Your task to perform on an android device: Show me productivity apps on the Play Store Image 0: 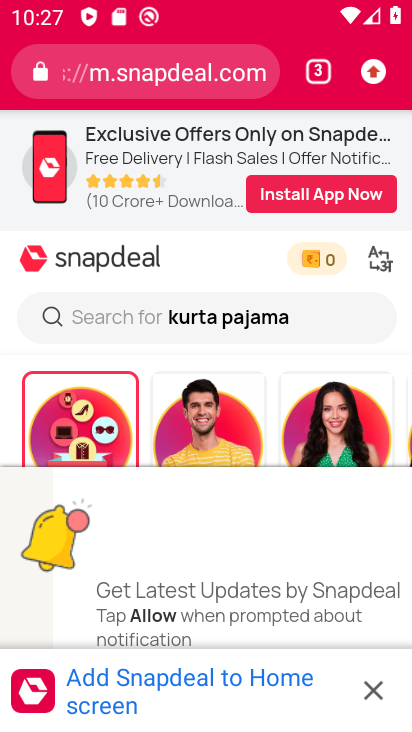
Step 0: press home button
Your task to perform on an android device: Show me productivity apps on the Play Store Image 1: 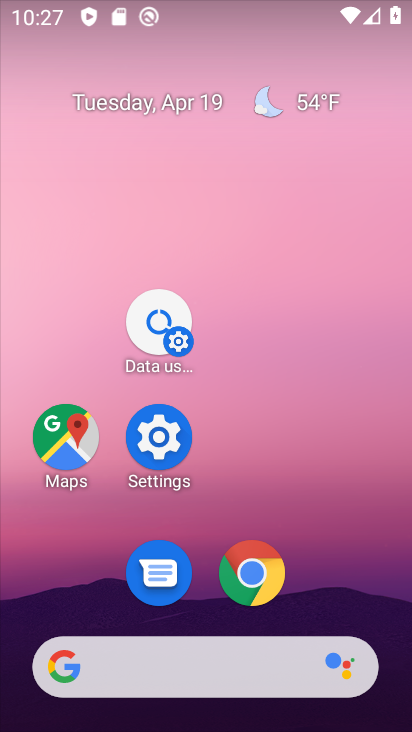
Step 1: drag from (367, 607) to (350, 5)
Your task to perform on an android device: Show me productivity apps on the Play Store Image 2: 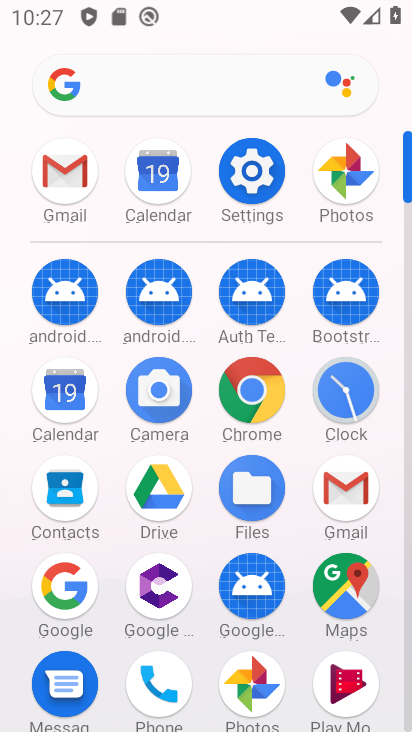
Step 2: click (405, 440)
Your task to perform on an android device: Show me productivity apps on the Play Store Image 3: 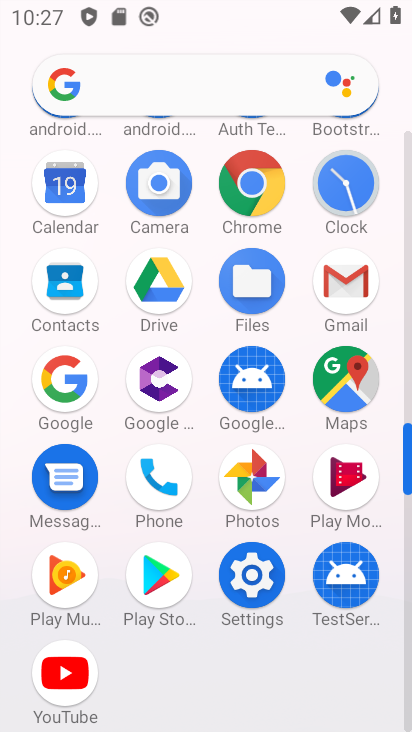
Step 3: click (149, 579)
Your task to perform on an android device: Show me productivity apps on the Play Store Image 4: 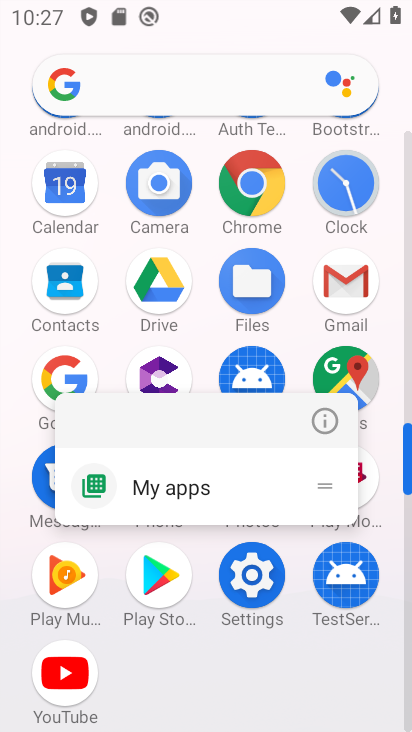
Step 4: click (169, 578)
Your task to perform on an android device: Show me productivity apps on the Play Store Image 5: 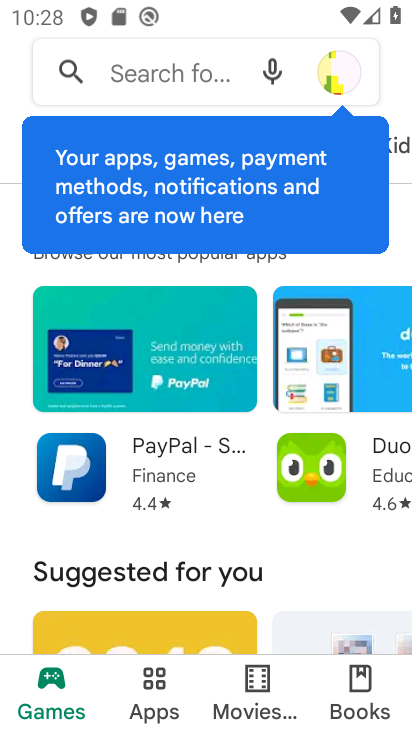
Step 5: click (147, 695)
Your task to perform on an android device: Show me productivity apps on the Play Store Image 6: 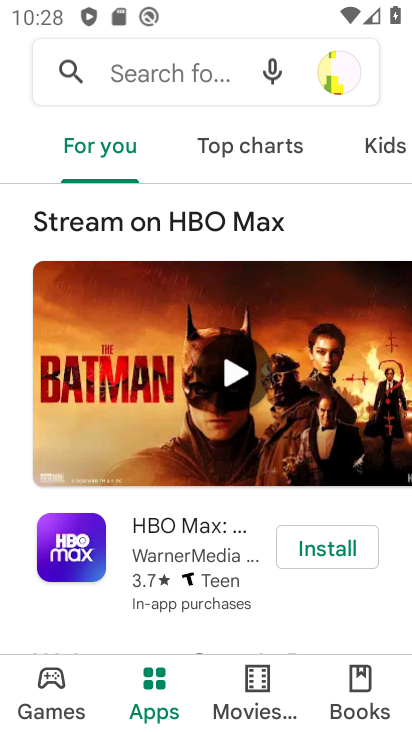
Step 6: drag from (242, 602) to (216, 296)
Your task to perform on an android device: Show me productivity apps on the Play Store Image 7: 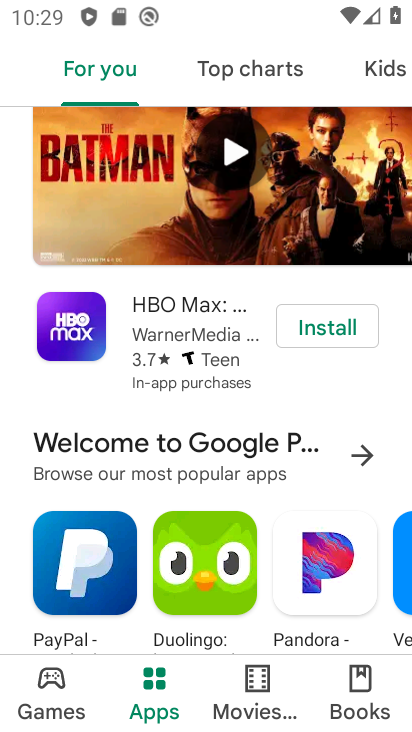
Step 7: drag from (225, 464) to (208, 279)
Your task to perform on an android device: Show me productivity apps on the Play Store Image 8: 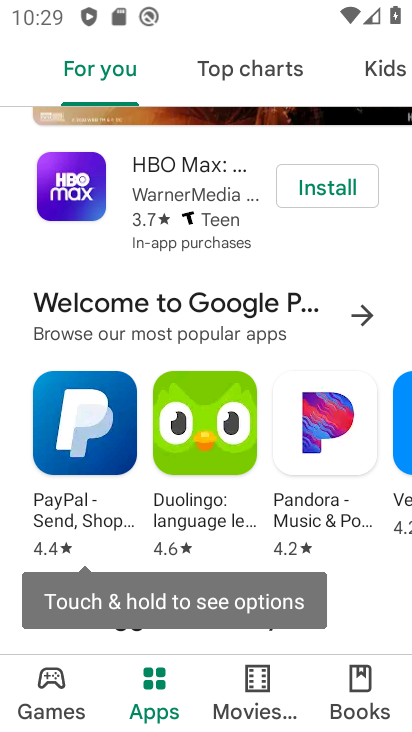
Step 8: drag from (203, 462) to (185, 240)
Your task to perform on an android device: Show me productivity apps on the Play Store Image 9: 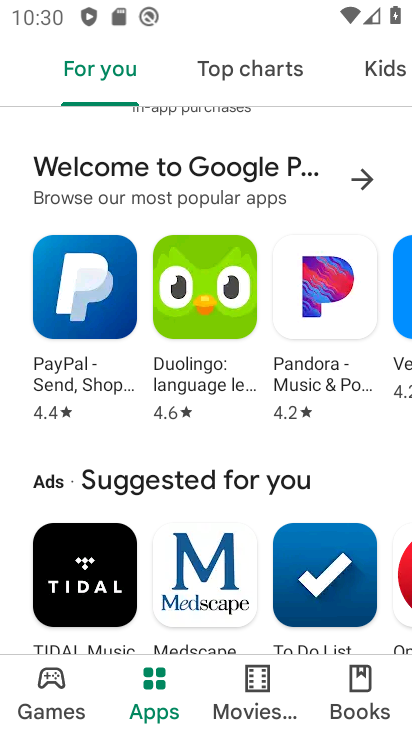
Step 9: drag from (185, 478) to (166, 253)
Your task to perform on an android device: Show me productivity apps on the Play Store Image 10: 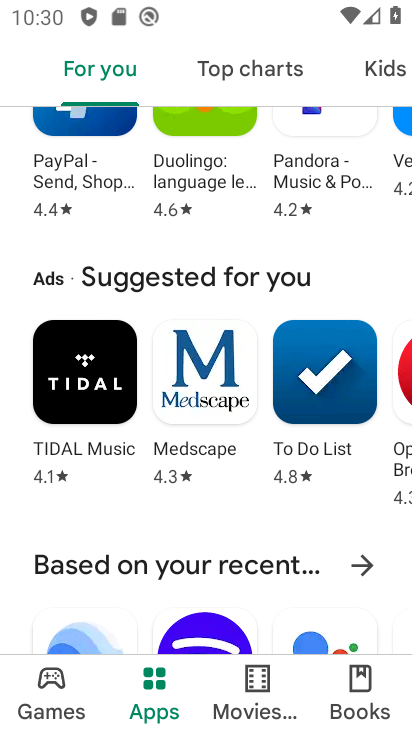
Step 10: drag from (172, 425) to (172, 687)
Your task to perform on an android device: Show me productivity apps on the Play Store Image 11: 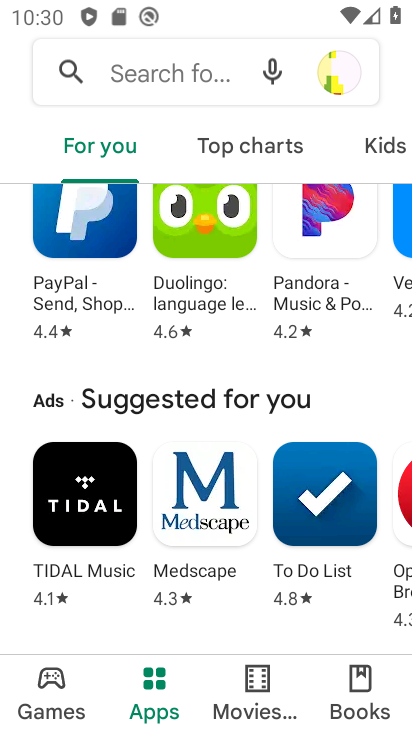
Step 11: drag from (178, 327) to (178, 706)
Your task to perform on an android device: Show me productivity apps on the Play Store Image 12: 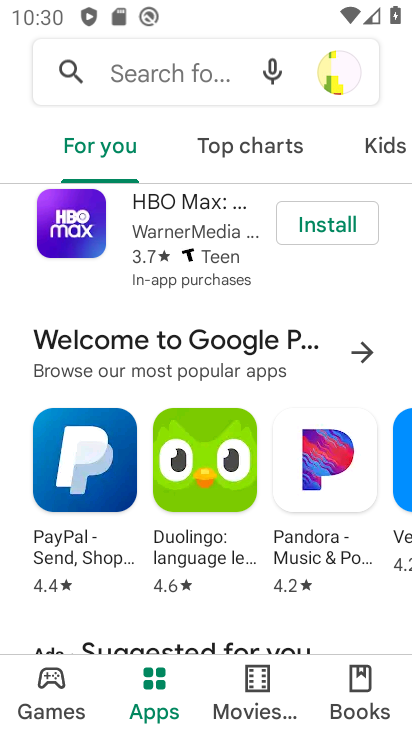
Step 12: drag from (259, 151) to (4, 142)
Your task to perform on an android device: Show me productivity apps on the Play Store Image 13: 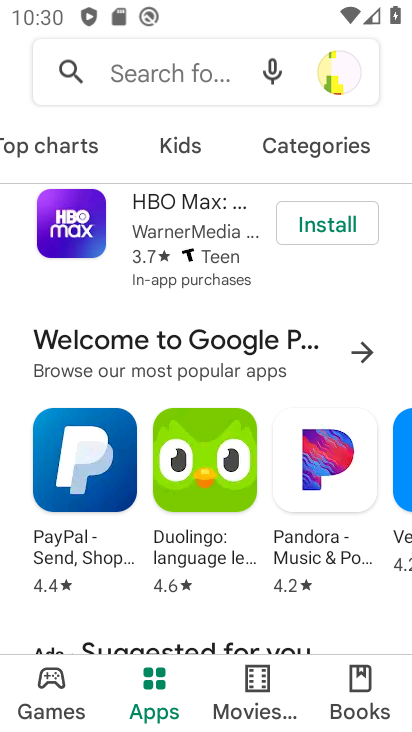
Step 13: click (287, 149)
Your task to perform on an android device: Show me productivity apps on the Play Store Image 14: 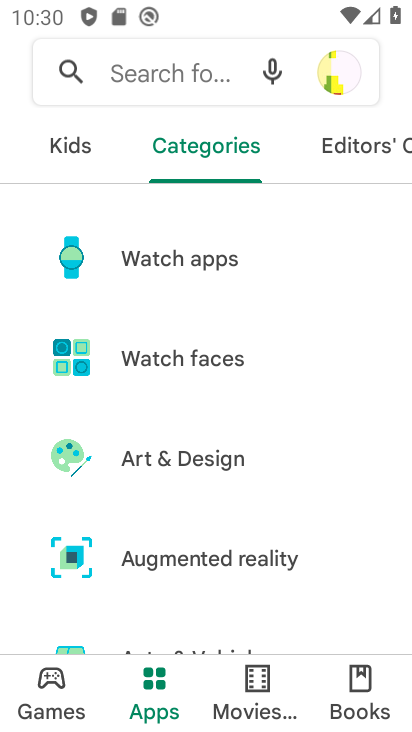
Step 14: drag from (264, 488) to (246, 202)
Your task to perform on an android device: Show me productivity apps on the Play Store Image 15: 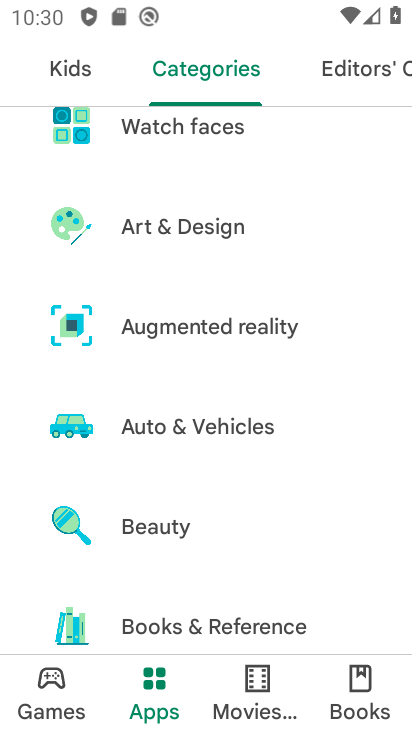
Step 15: drag from (241, 429) to (235, 184)
Your task to perform on an android device: Show me productivity apps on the Play Store Image 16: 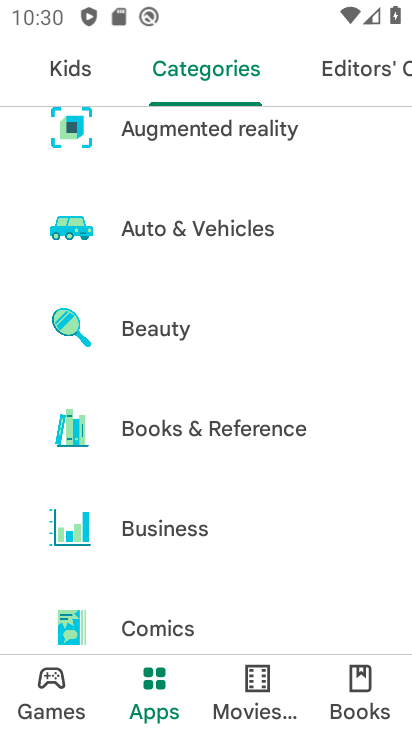
Step 16: drag from (224, 458) to (224, 195)
Your task to perform on an android device: Show me productivity apps on the Play Store Image 17: 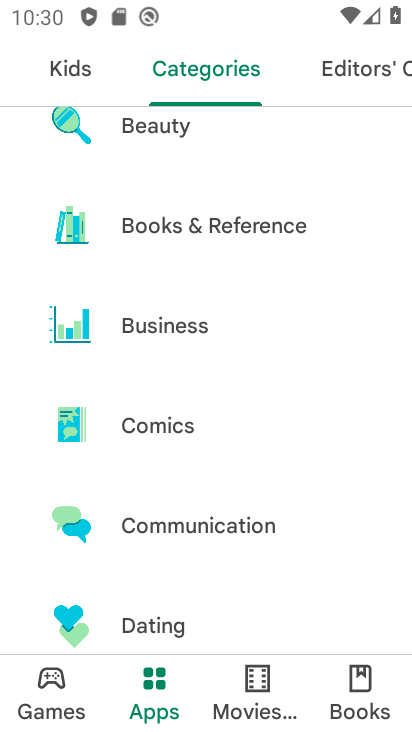
Step 17: drag from (218, 545) to (198, 202)
Your task to perform on an android device: Show me productivity apps on the Play Store Image 18: 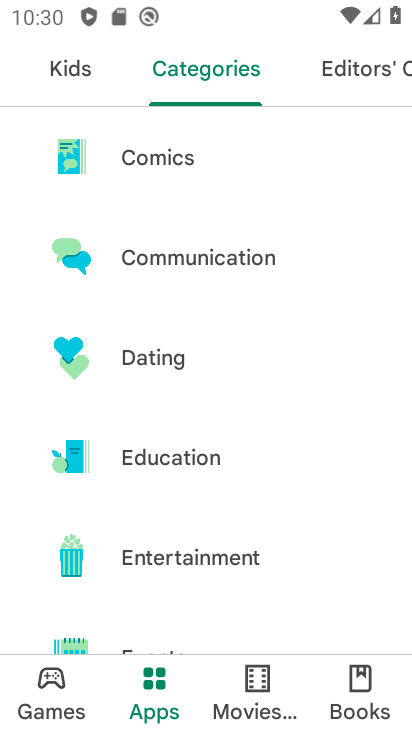
Step 18: drag from (189, 487) to (186, 202)
Your task to perform on an android device: Show me productivity apps on the Play Store Image 19: 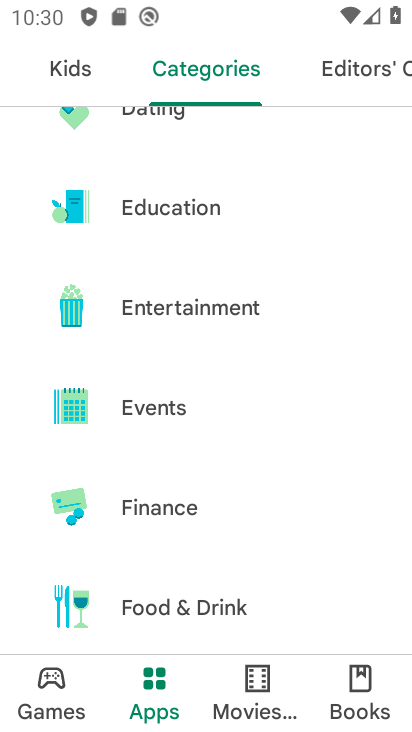
Step 19: drag from (185, 501) to (187, 268)
Your task to perform on an android device: Show me productivity apps on the Play Store Image 20: 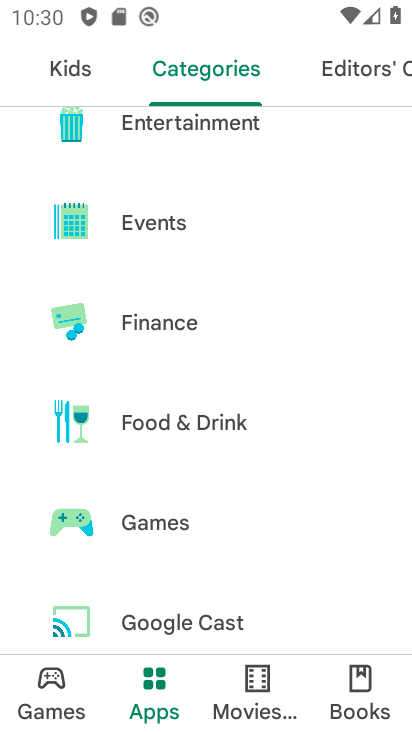
Step 20: drag from (170, 514) to (167, 289)
Your task to perform on an android device: Show me productivity apps on the Play Store Image 21: 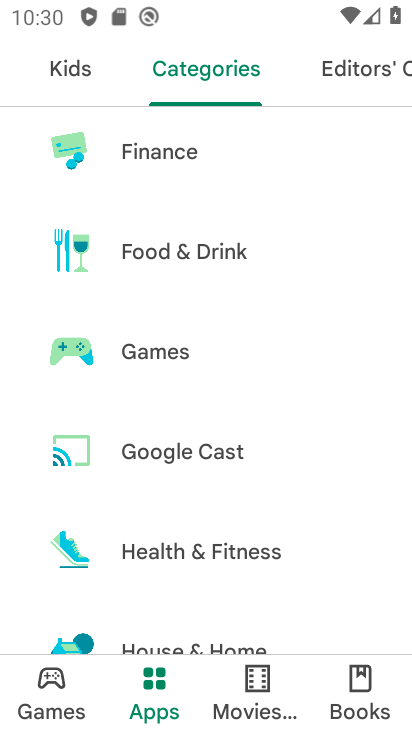
Step 21: drag from (197, 560) to (176, 284)
Your task to perform on an android device: Show me productivity apps on the Play Store Image 22: 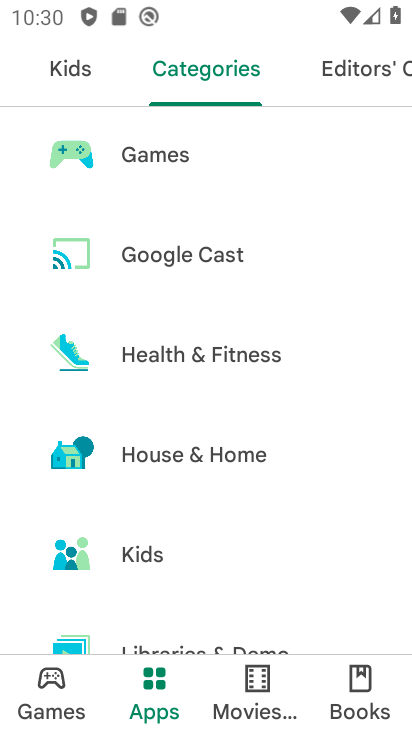
Step 22: drag from (192, 508) to (190, 281)
Your task to perform on an android device: Show me productivity apps on the Play Store Image 23: 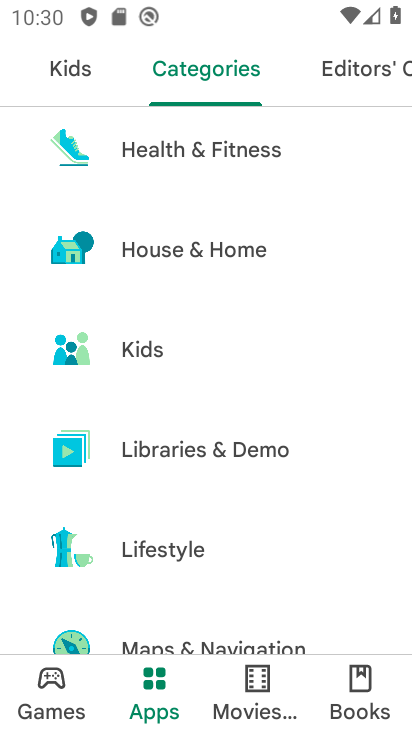
Step 23: drag from (203, 485) to (189, 241)
Your task to perform on an android device: Show me productivity apps on the Play Store Image 24: 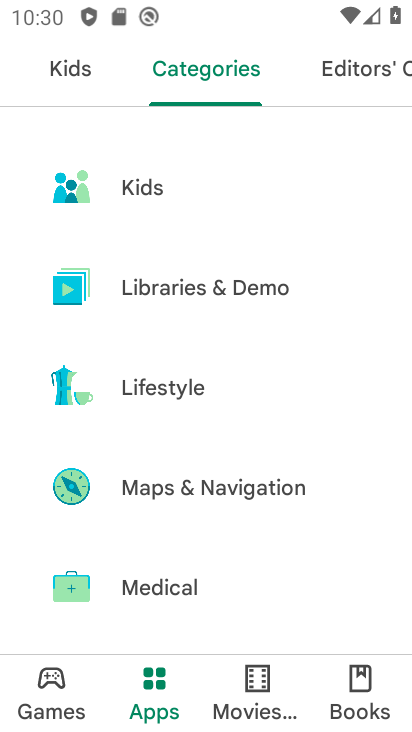
Step 24: drag from (232, 569) to (208, 256)
Your task to perform on an android device: Show me productivity apps on the Play Store Image 25: 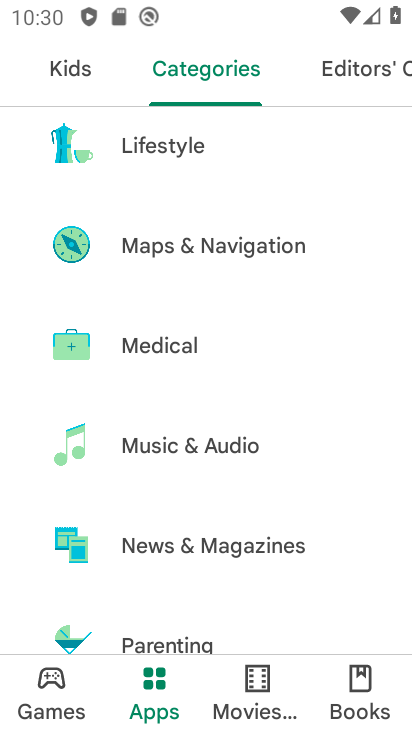
Step 25: drag from (225, 486) to (201, 245)
Your task to perform on an android device: Show me productivity apps on the Play Store Image 26: 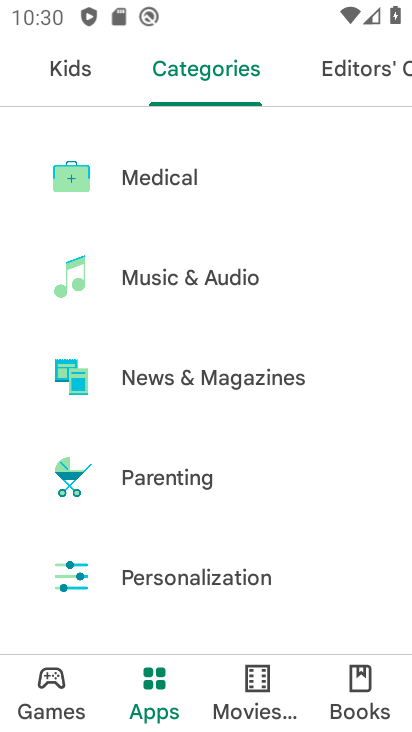
Step 26: drag from (251, 542) to (224, 227)
Your task to perform on an android device: Show me productivity apps on the Play Store Image 27: 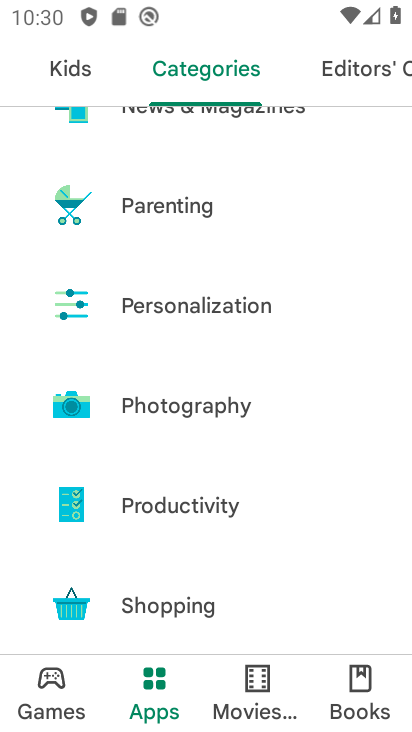
Step 27: click (170, 507)
Your task to perform on an android device: Show me productivity apps on the Play Store Image 28: 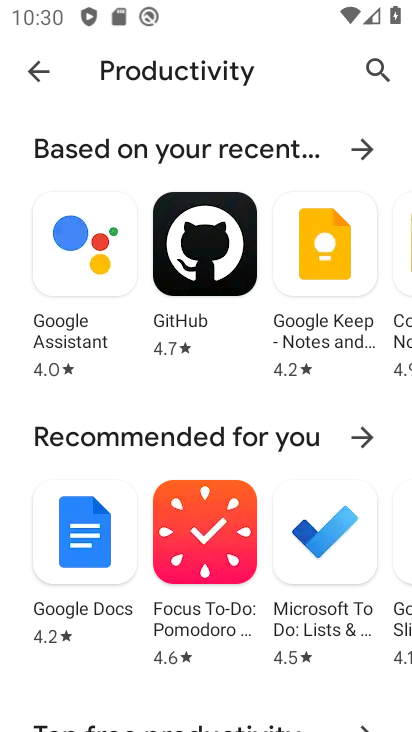
Step 28: task complete